Your task to perform on an android device: Open Google Chrome and click the shortcut for Amazon.com Image 0: 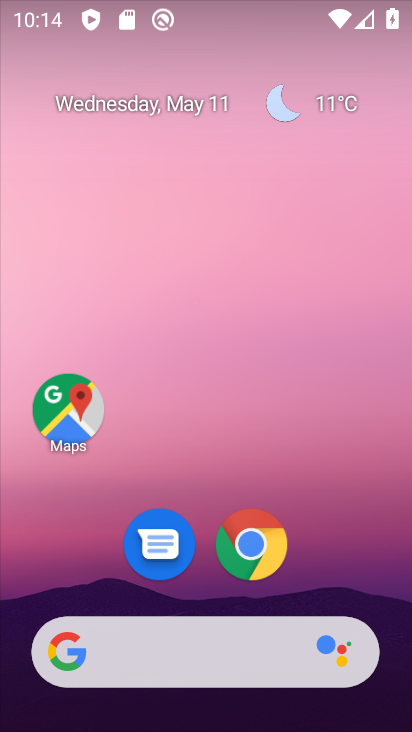
Step 0: click (252, 542)
Your task to perform on an android device: Open Google Chrome and click the shortcut for Amazon.com Image 1: 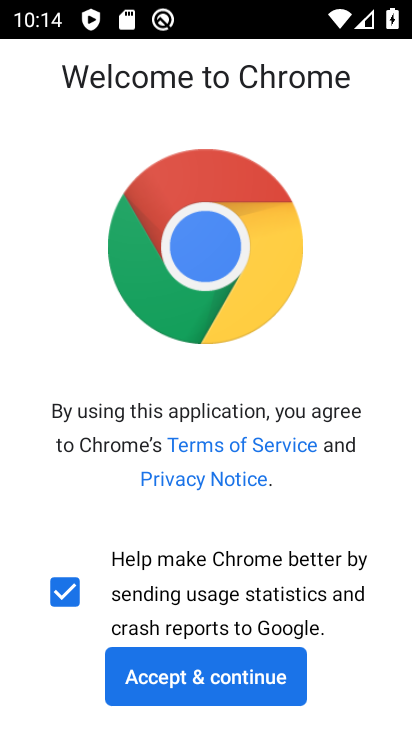
Step 1: click (180, 685)
Your task to perform on an android device: Open Google Chrome and click the shortcut for Amazon.com Image 2: 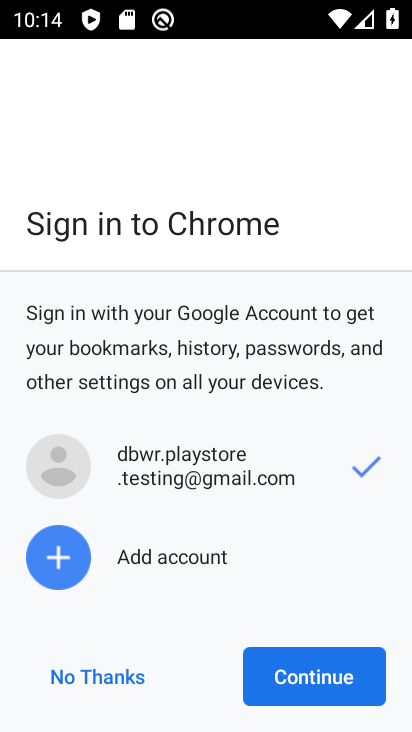
Step 2: click (326, 686)
Your task to perform on an android device: Open Google Chrome and click the shortcut for Amazon.com Image 3: 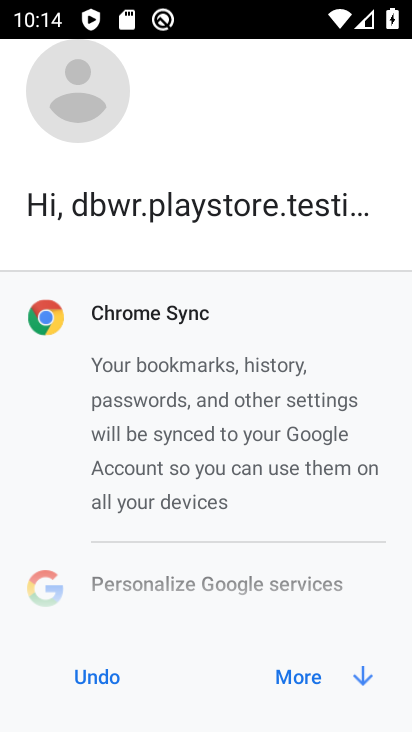
Step 3: click (315, 687)
Your task to perform on an android device: Open Google Chrome and click the shortcut for Amazon.com Image 4: 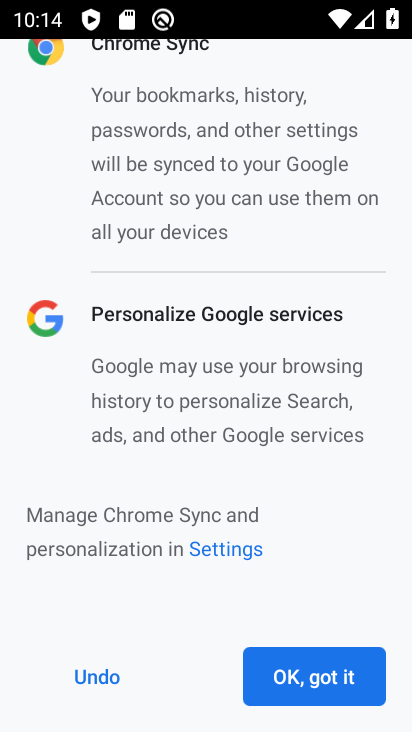
Step 4: click (312, 687)
Your task to perform on an android device: Open Google Chrome and click the shortcut for Amazon.com Image 5: 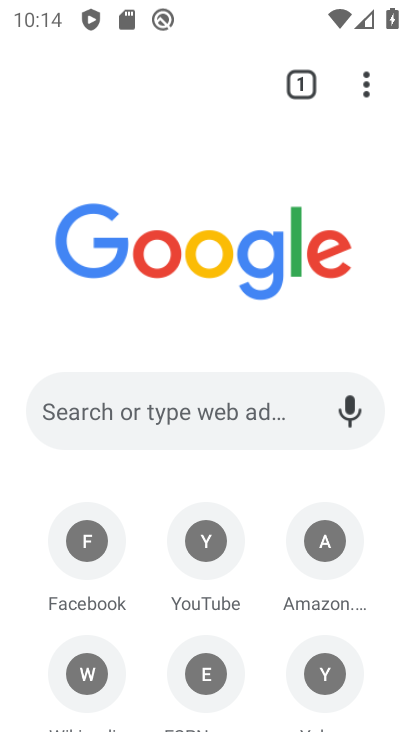
Step 5: click (337, 553)
Your task to perform on an android device: Open Google Chrome and click the shortcut for Amazon.com Image 6: 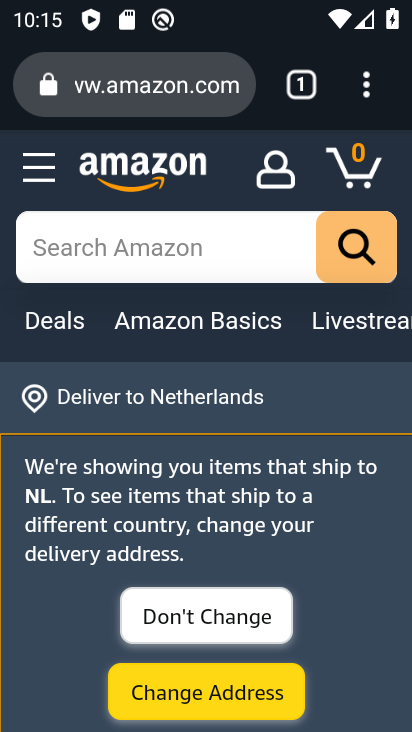
Step 6: task complete